Your task to perform on an android device: turn on bluetooth scan Image 0: 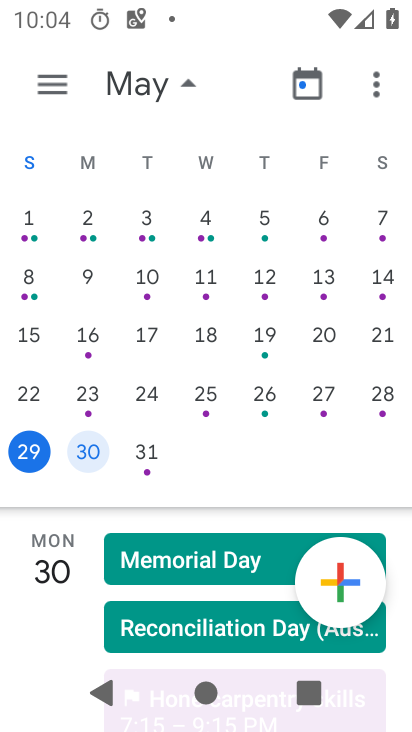
Step 0: press home button
Your task to perform on an android device: turn on bluetooth scan Image 1: 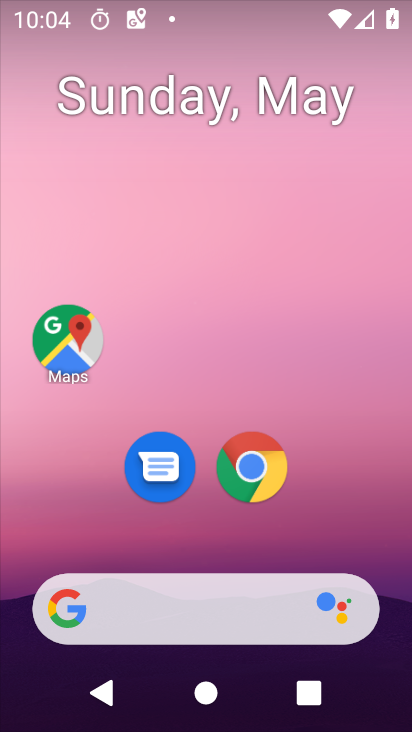
Step 1: drag from (213, 557) to (203, 162)
Your task to perform on an android device: turn on bluetooth scan Image 2: 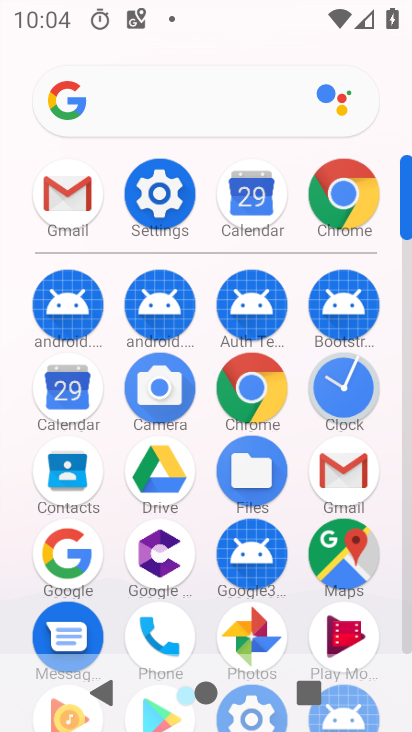
Step 2: click (161, 202)
Your task to perform on an android device: turn on bluetooth scan Image 3: 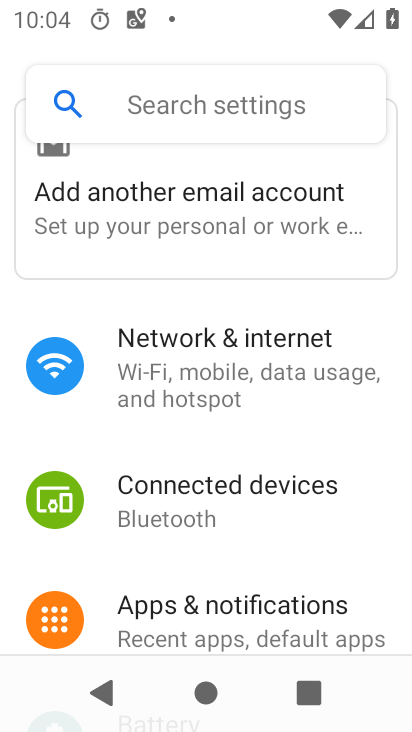
Step 3: drag from (234, 584) to (274, 244)
Your task to perform on an android device: turn on bluetooth scan Image 4: 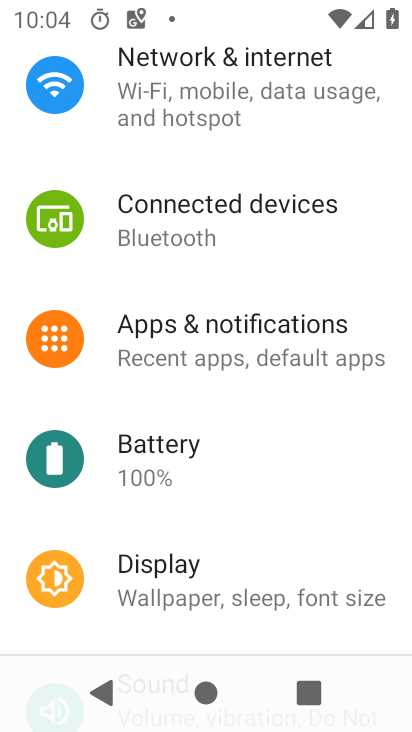
Step 4: drag from (277, 551) to (303, 269)
Your task to perform on an android device: turn on bluetooth scan Image 5: 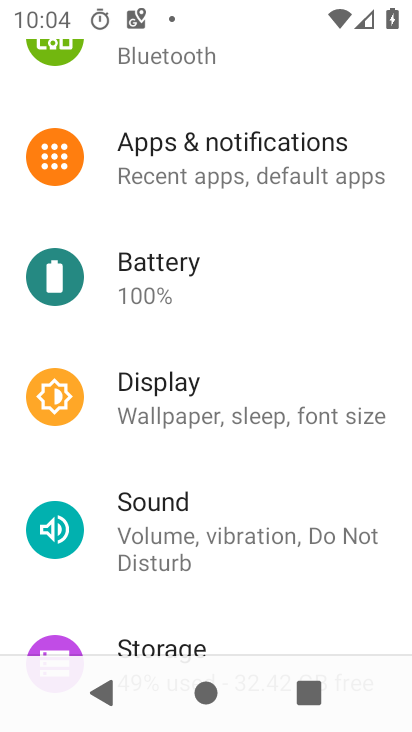
Step 5: drag from (270, 532) to (275, 208)
Your task to perform on an android device: turn on bluetooth scan Image 6: 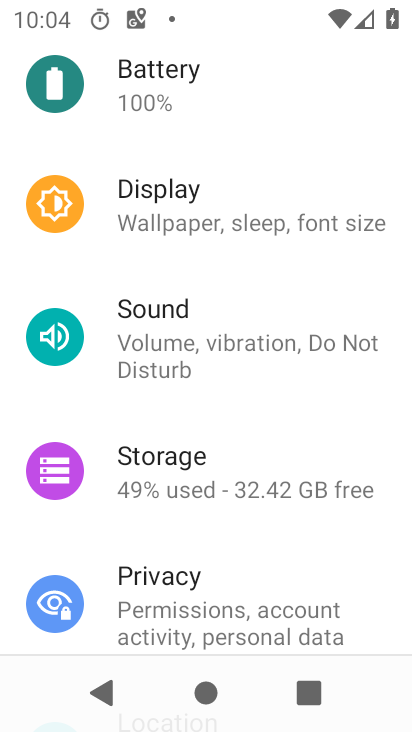
Step 6: drag from (261, 580) to (278, 253)
Your task to perform on an android device: turn on bluetooth scan Image 7: 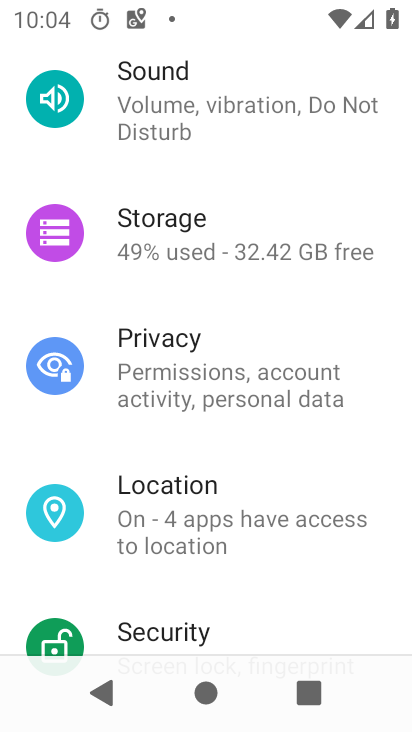
Step 7: click (236, 514)
Your task to perform on an android device: turn on bluetooth scan Image 8: 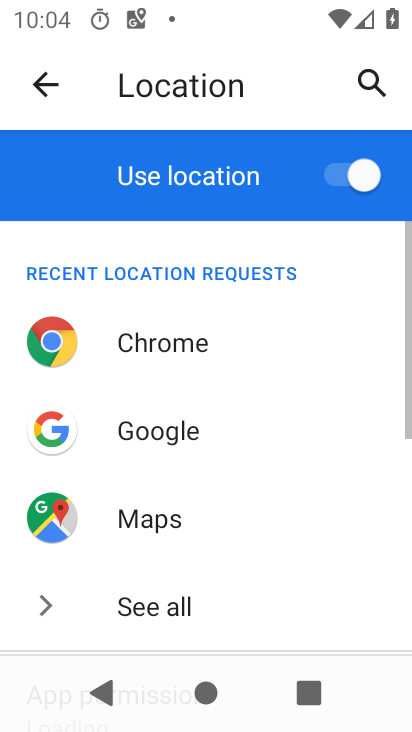
Step 8: drag from (240, 512) to (232, 145)
Your task to perform on an android device: turn on bluetooth scan Image 9: 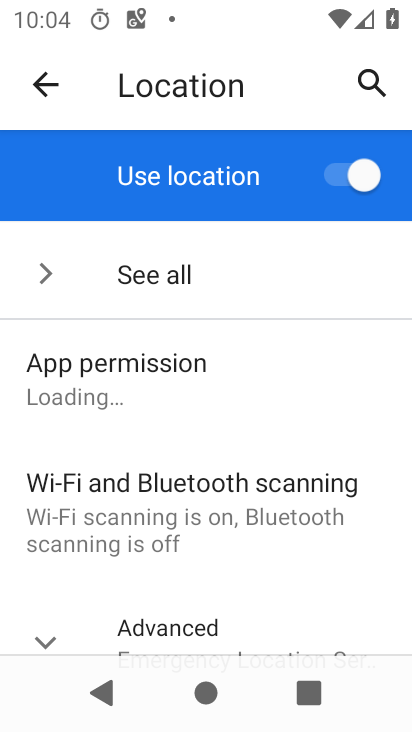
Step 9: click (224, 528)
Your task to perform on an android device: turn on bluetooth scan Image 10: 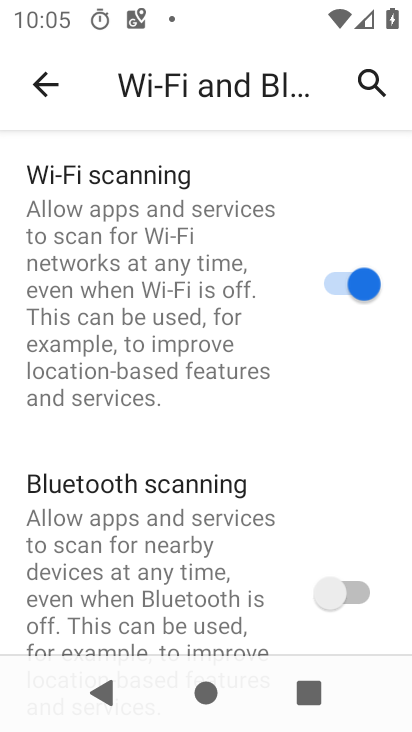
Step 10: click (367, 591)
Your task to perform on an android device: turn on bluetooth scan Image 11: 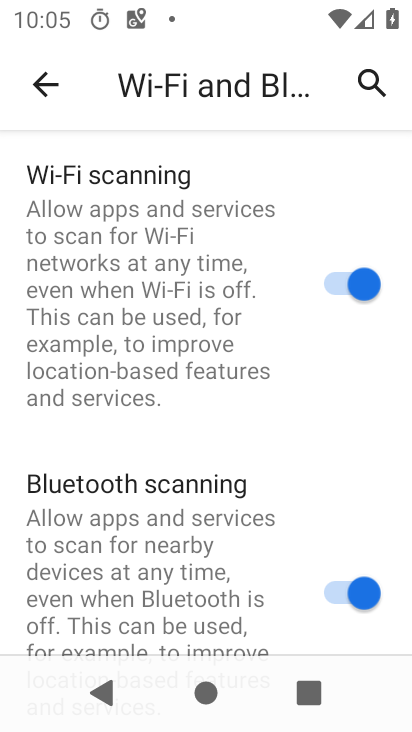
Step 11: task complete